Your task to perform on an android device: Open the Play Movies app and select the watchlist tab. Image 0: 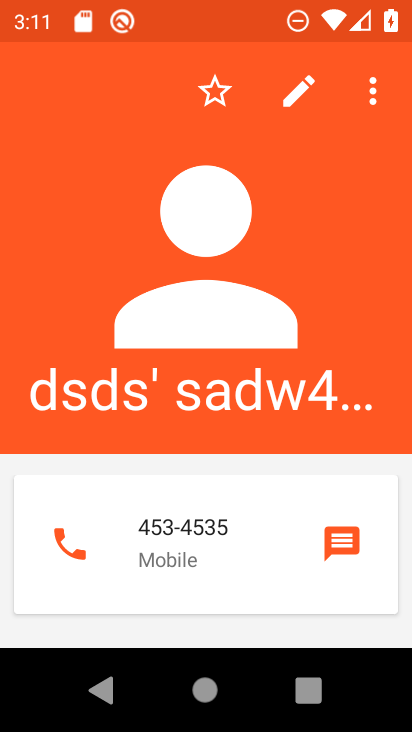
Step 0: press home button
Your task to perform on an android device: Open the Play Movies app and select the watchlist tab. Image 1: 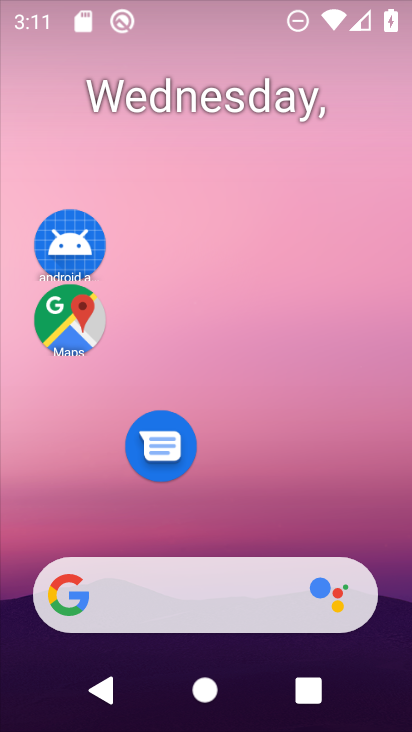
Step 1: drag from (302, 495) to (330, 59)
Your task to perform on an android device: Open the Play Movies app and select the watchlist tab. Image 2: 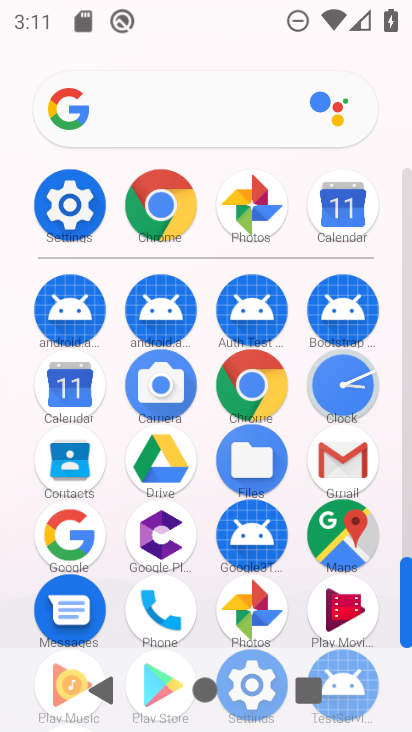
Step 2: click (357, 612)
Your task to perform on an android device: Open the Play Movies app and select the watchlist tab. Image 3: 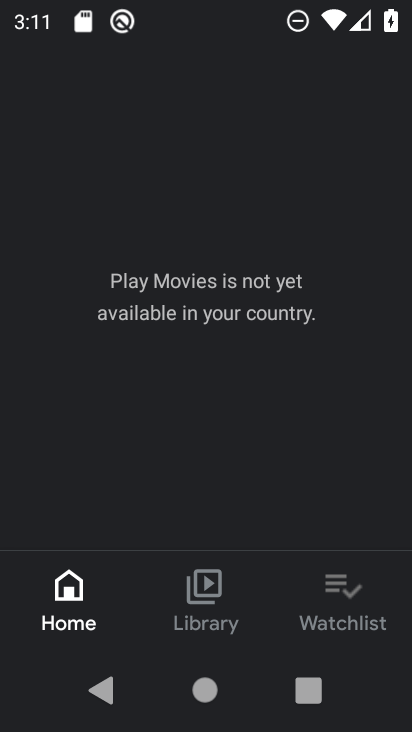
Step 3: click (338, 622)
Your task to perform on an android device: Open the Play Movies app and select the watchlist tab. Image 4: 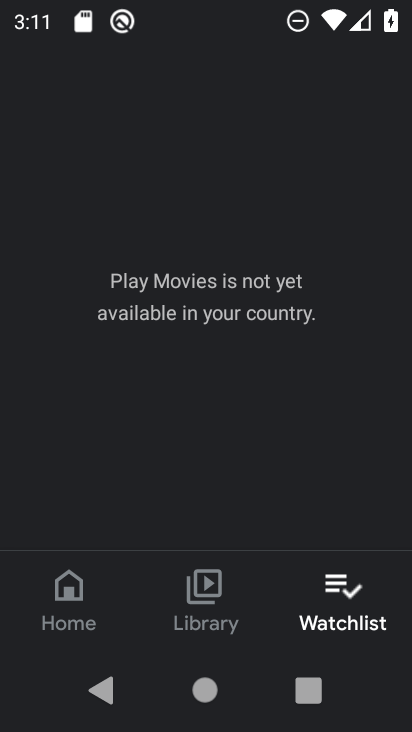
Step 4: task complete